Your task to perform on an android device: Open battery settings Image 0: 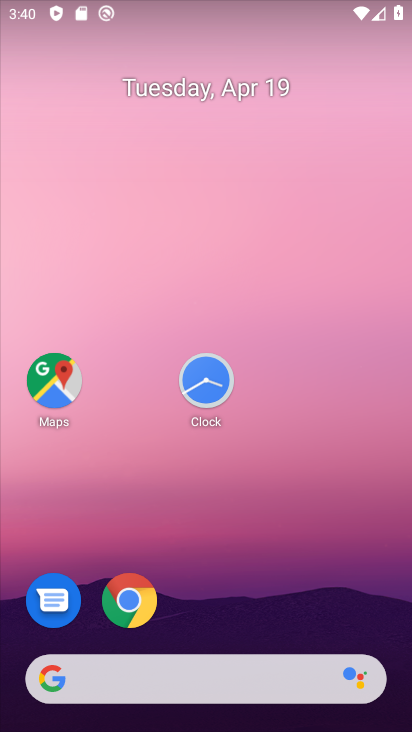
Step 0: click (150, 143)
Your task to perform on an android device: Open battery settings Image 1: 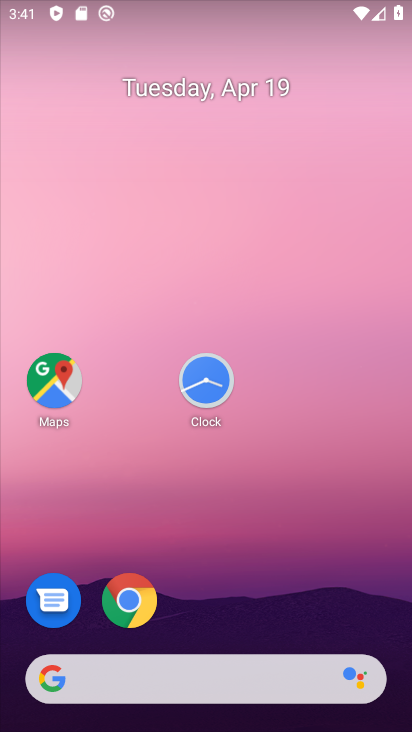
Step 1: drag from (249, 556) to (135, 98)
Your task to perform on an android device: Open battery settings Image 2: 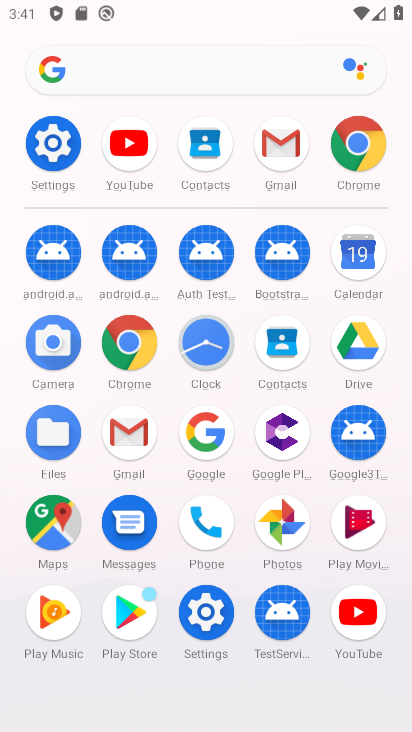
Step 2: click (63, 141)
Your task to perform on an android device: Open battery settings Image 3: 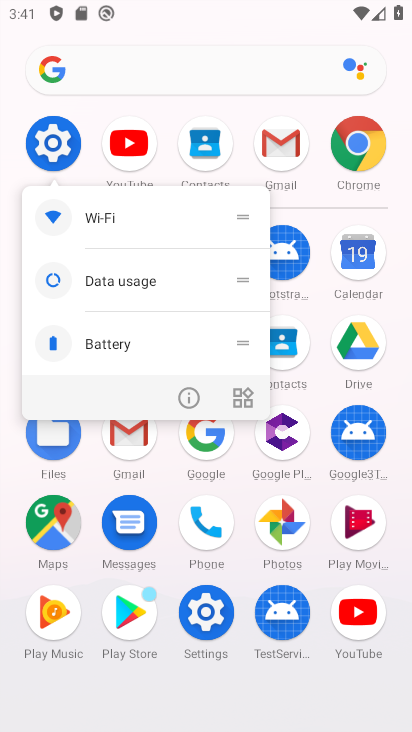
Step 3: click (316, 197)
Your task to perform on an android device: Open battery settings Image 4: 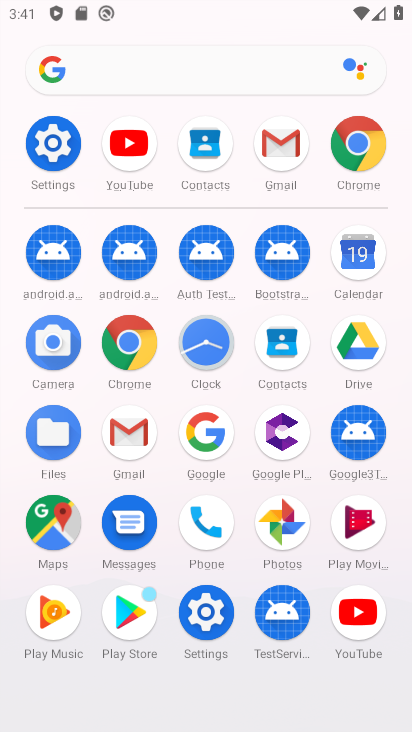
Step 4: click (57, 156)
Your task to perform on an android device: Open battery settings Image 5: 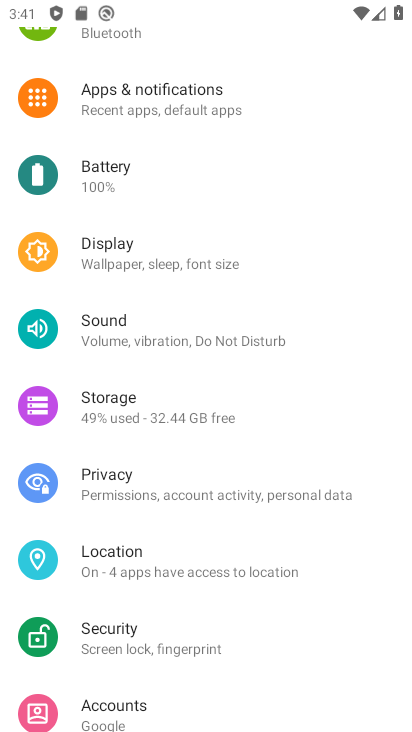
Step 5: click (57, 156)
Your task to perform on an android device: Open battery settings Image 6: 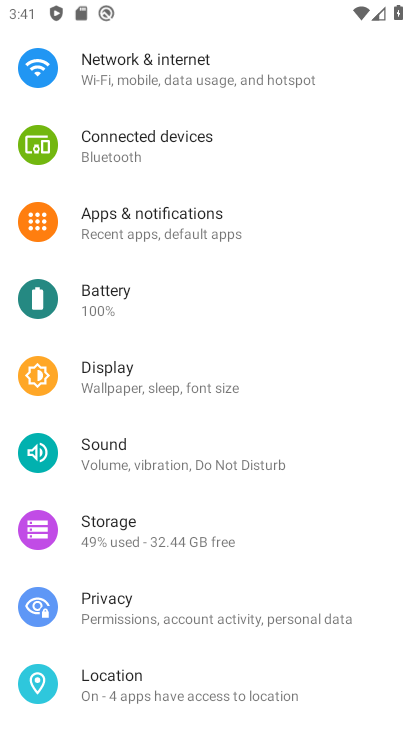
Step 6: click (100, 307)
Your task to perform on an android device: Open battery settings Image 7: 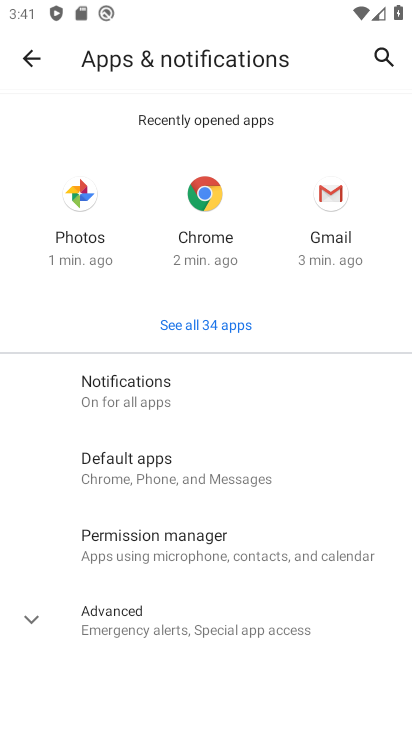
Step 7: click (24, 45)
Your task to perform on an android device: Open battery settings Image 8: 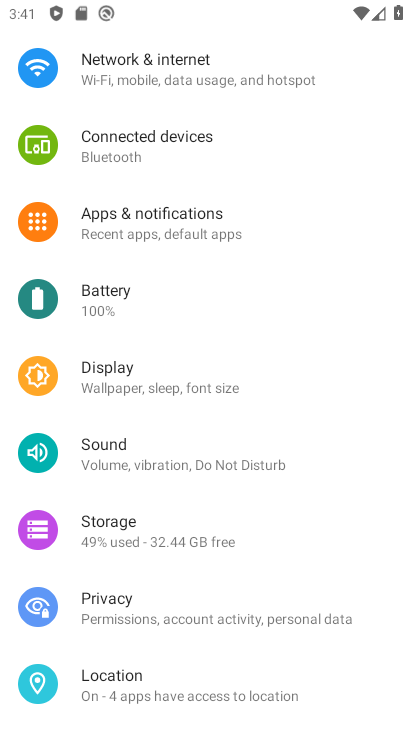
Step 8: click (89, 304)
Your task to perform on an android device: Open battery settings Image 9: 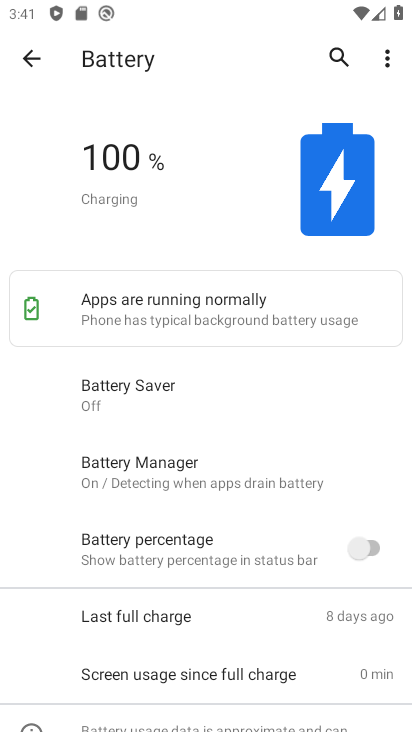
Step 9: task complete